Your task to perform on an android device: Go to Amazon Image 0: 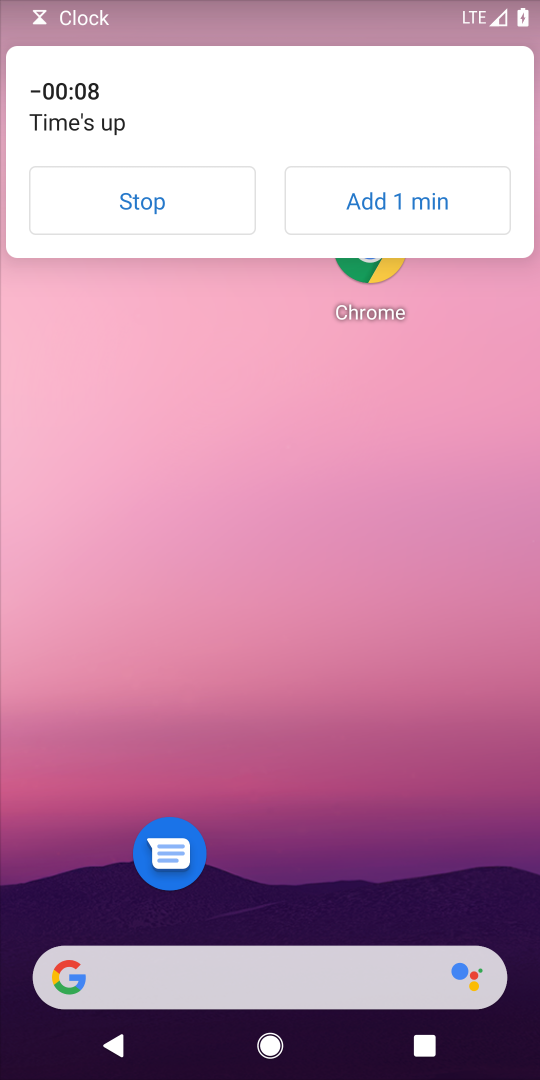
Step 0: click (143, 191)
Your task to perform on an android device: Go to Amazon Image 1: 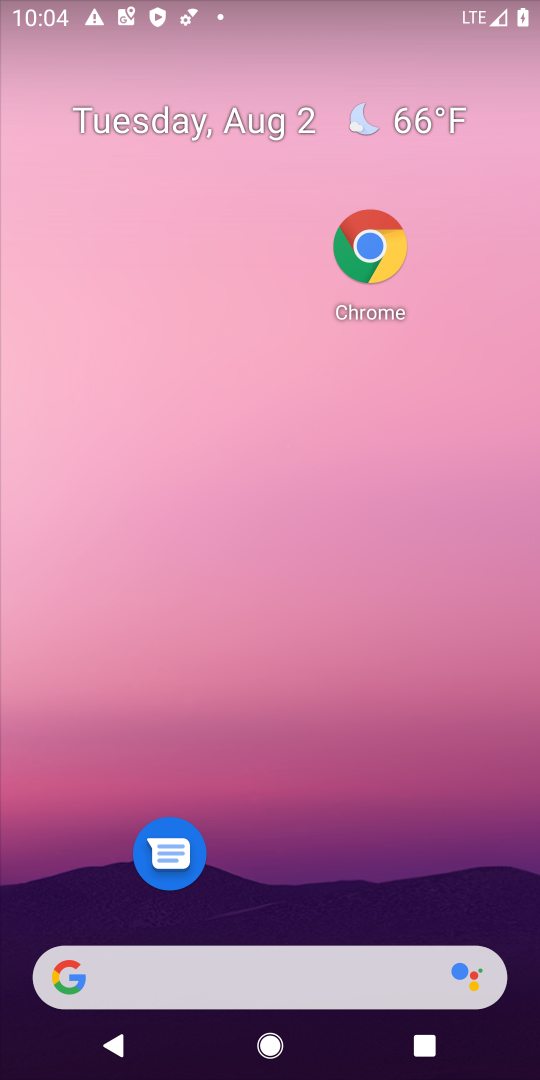
Step 1: drag from (313, 920) to (233, 39)
Your task to perform on an android device: Go to Amazon Image 2: 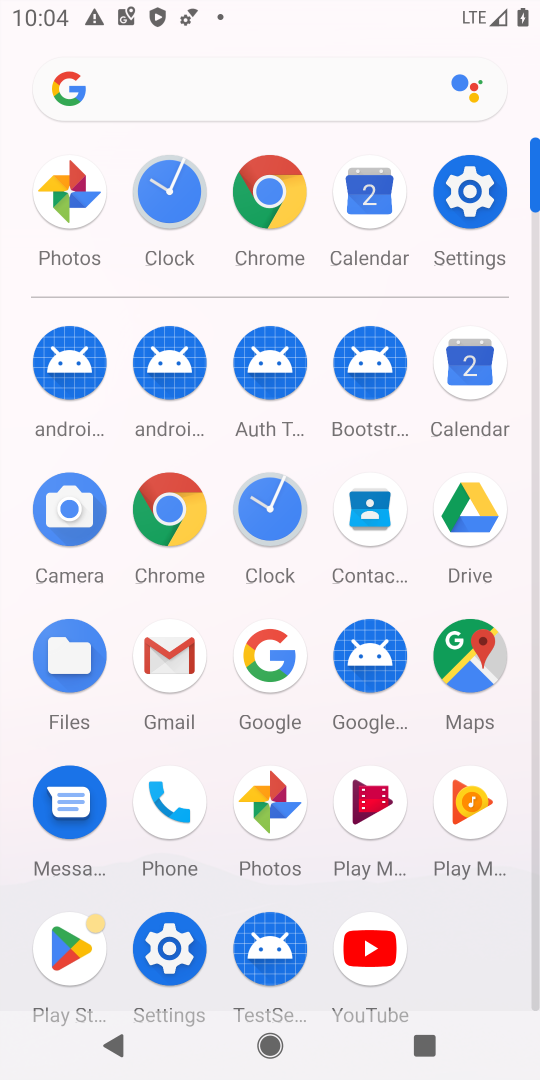
Step 2: click (185, 512)
Your task to perform on an android device: Go to Amazon Image 3: 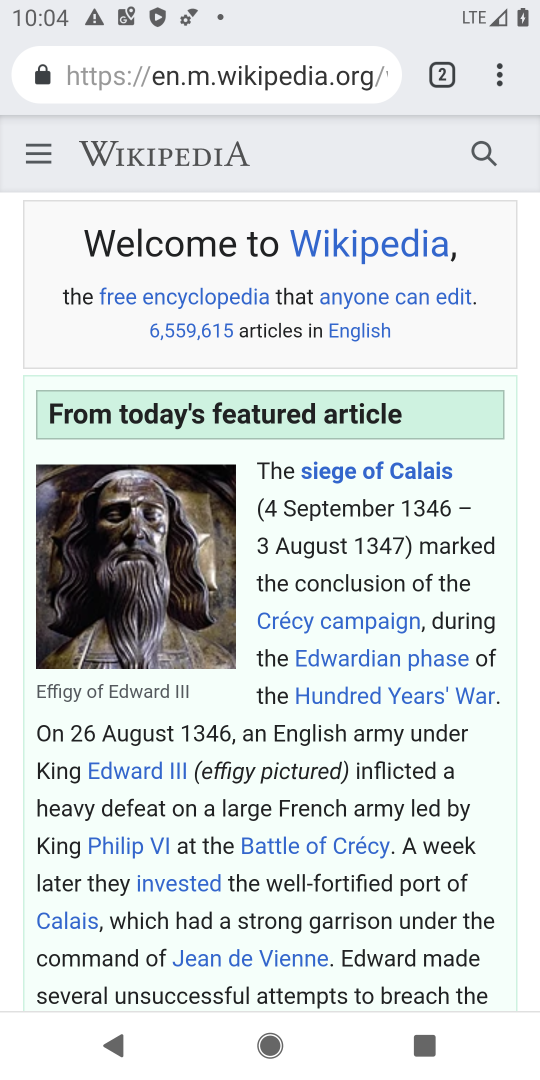
Step 3: click (446, 78)
Your task to perform on an android device: Go to Amazon Image 4: 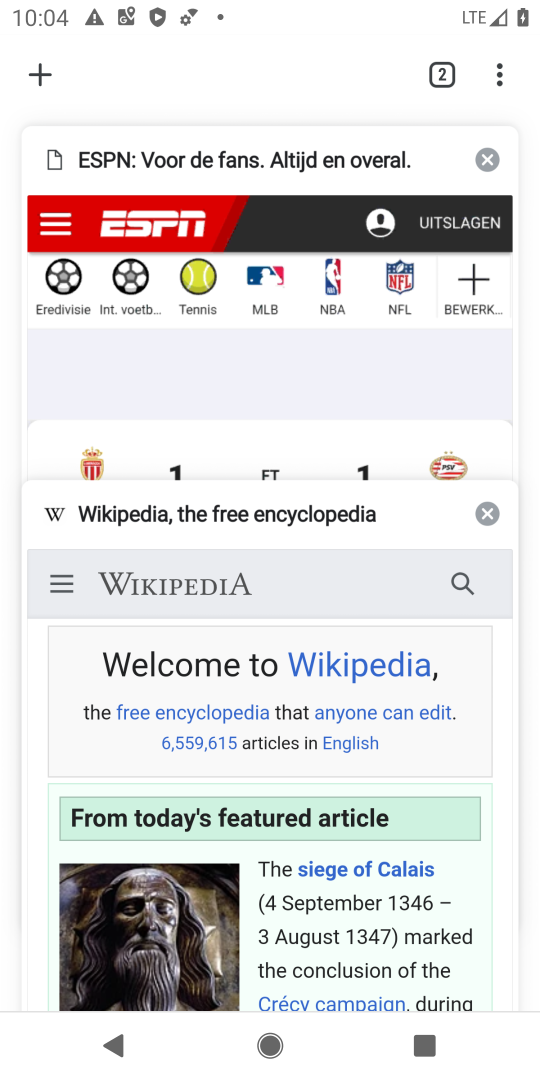
Step 4: click (34, 66)
Your task to perform on an android device: Go to Amazon Image 5: 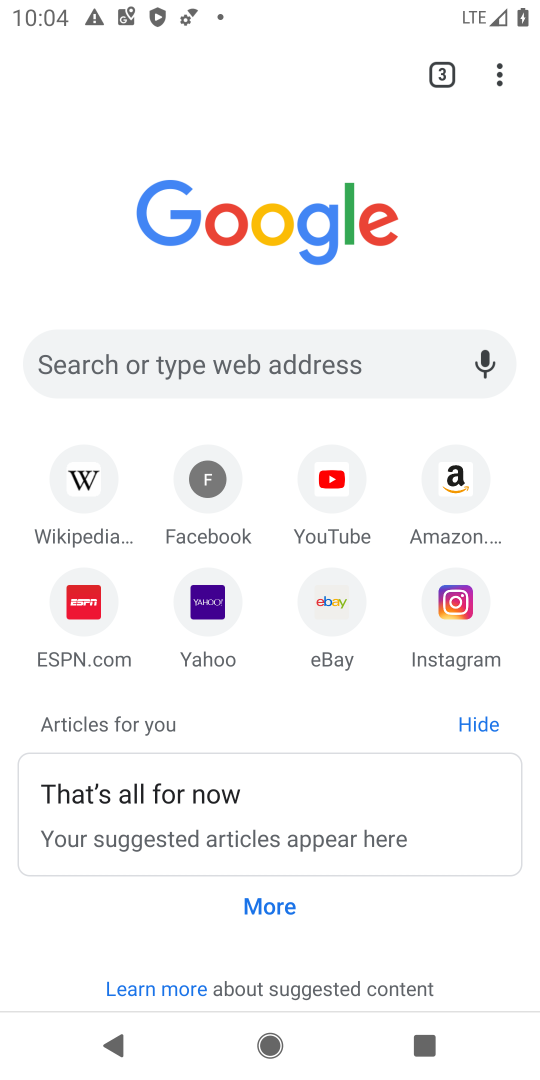
Step 5: click (427, 490)
Your task to perform on an android device: Go to Amazon Image 6: 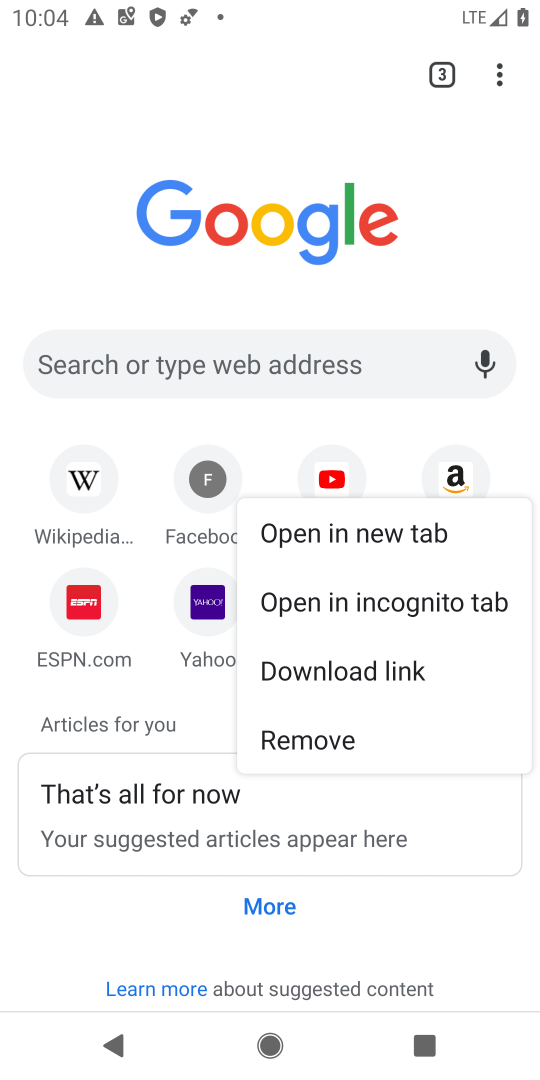
Step 6: click (457, 477)
Your task to perform on an android device: Go to Amazon Image 7: 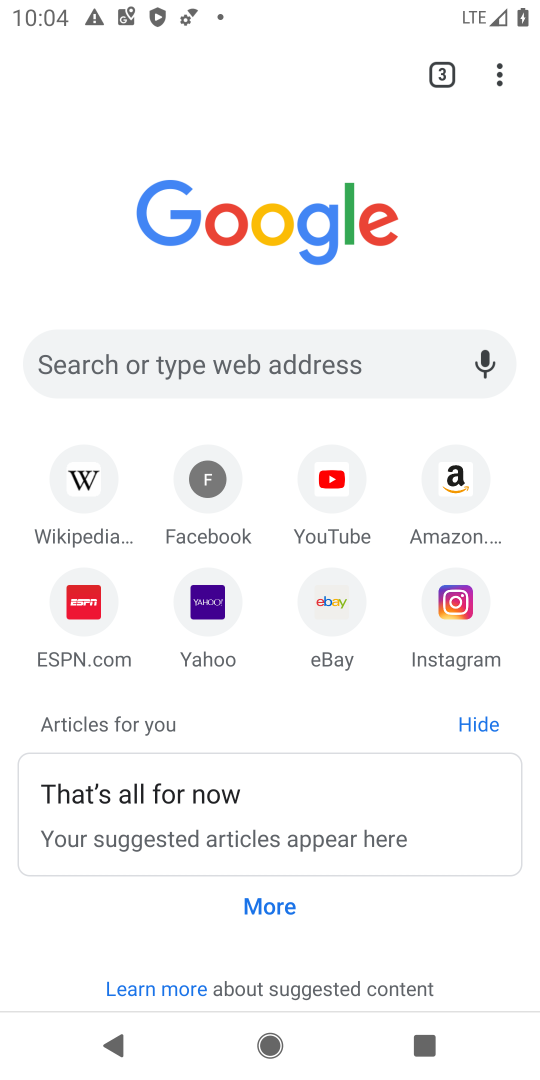
Step 7: click (458, 476)
Your task to perform on an android device: Go to Amazon Image 8: 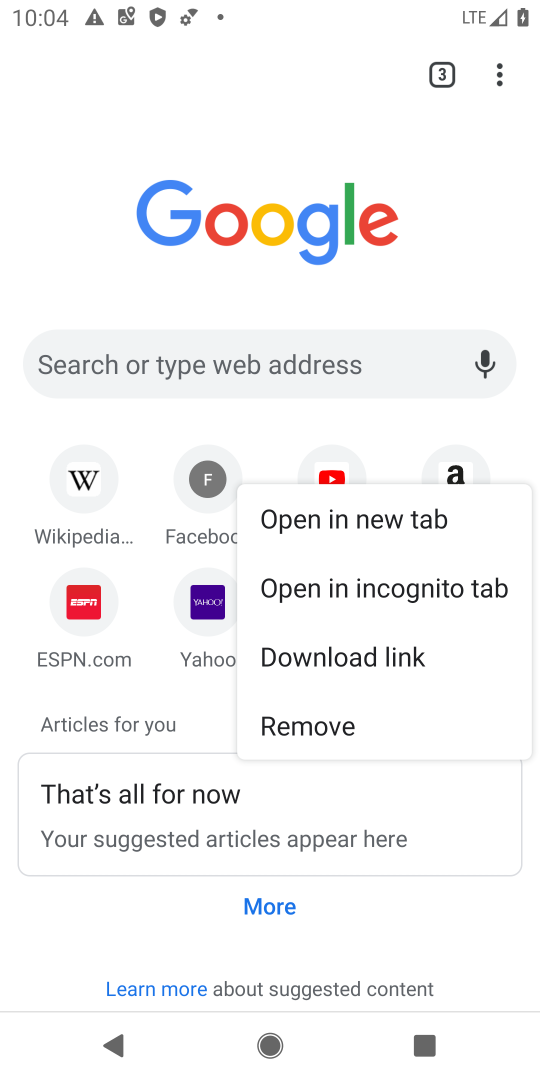
Step 8: click (458, 476)
Your task to perform on an android device: Go to Amazon Image 9: 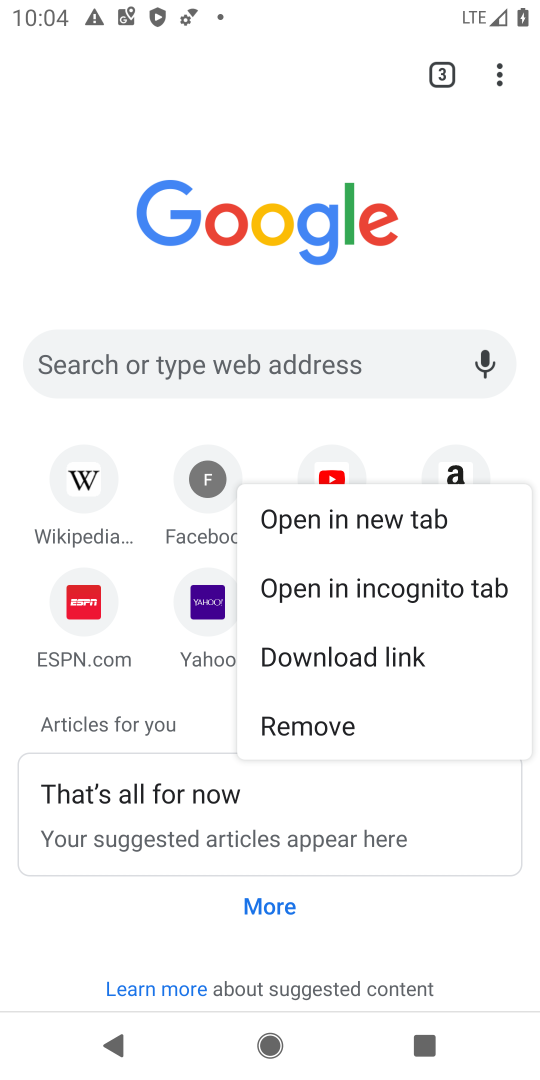
Step 9: click (458, 457)
Your task to perform on an android device: Go to Amazon Image 10: 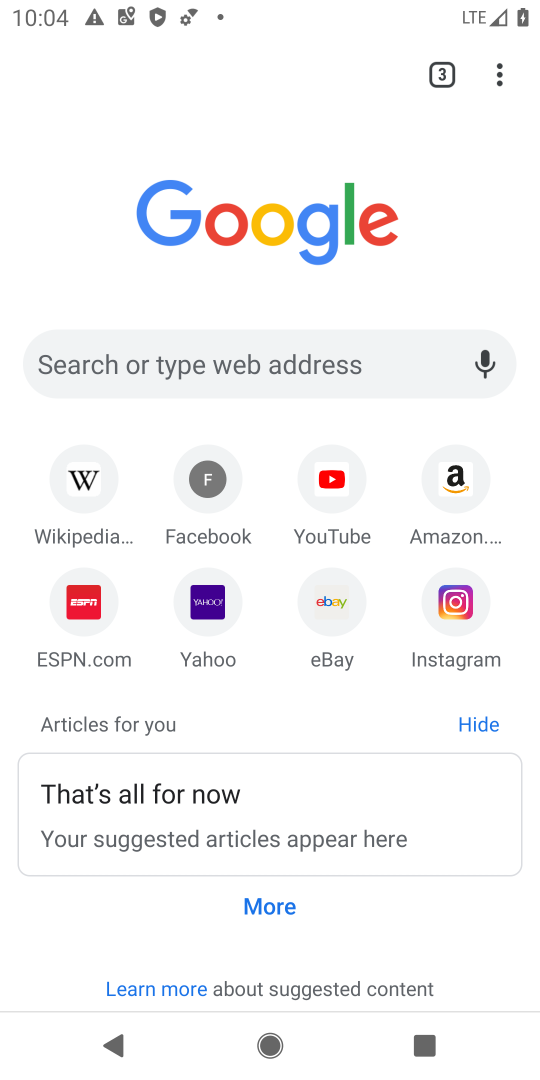
Step 10: click (465, 481)
Your task to perform on an android device: Go to Amazon Image 11: 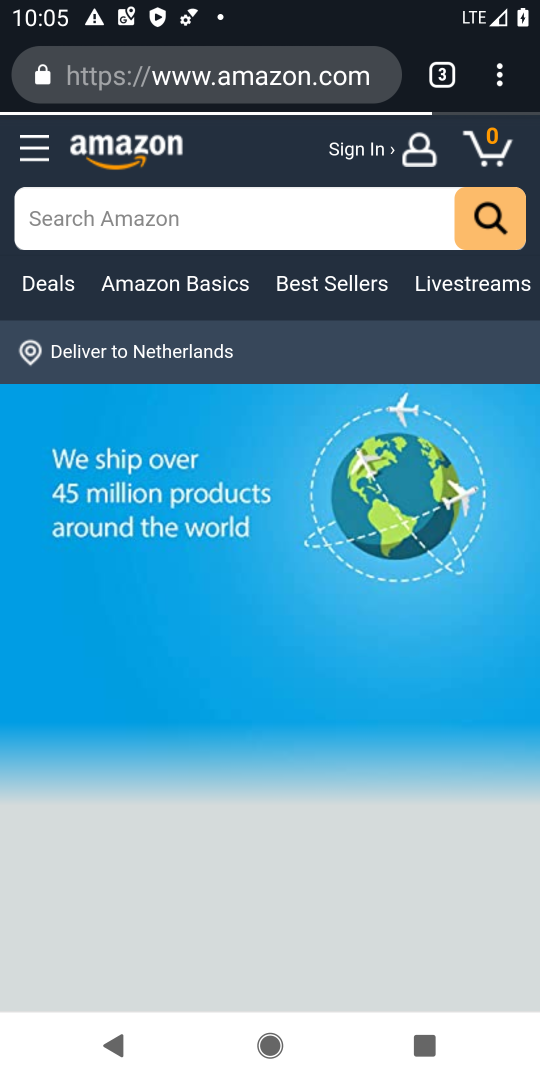
Step 11: task complete